Your task to perform on an android device: set an alarm Image 0: 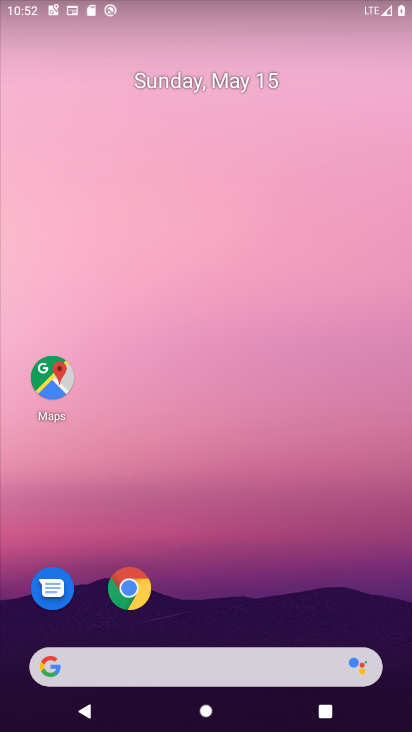
Step 0: drag from (204, 618) to (234, 111)
Your task to perform on an android device: set an alarm Image 1: 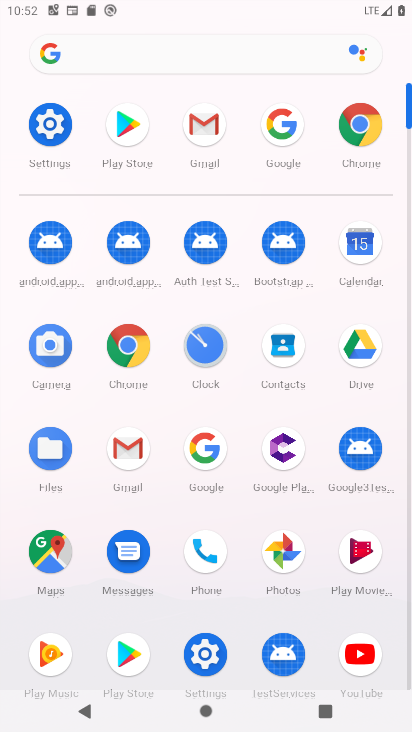
Step 1: click (204, 342)
Your task to perform on an android device: set an alarm Image 2: 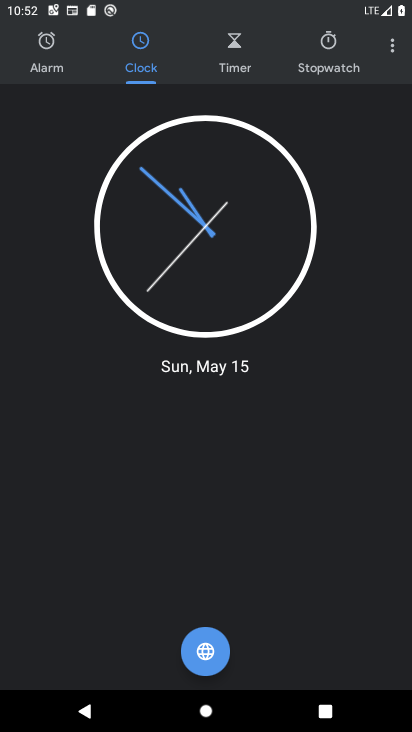
Step 2: click (48, 41)
Your task to perform on an android device: set an alarm Image 3: 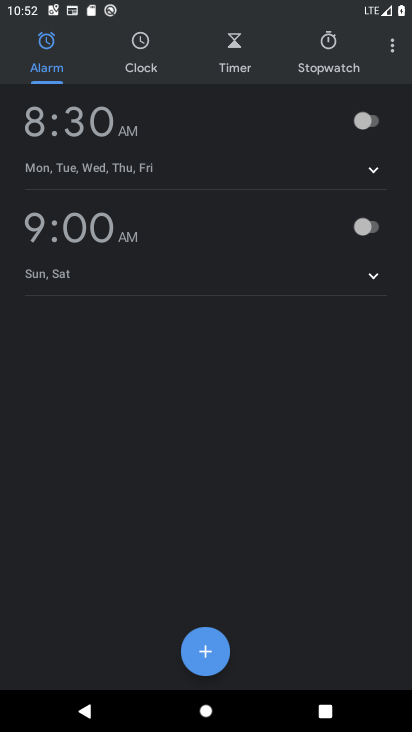
Step 3: click (368, 221)
Your task to perform on an android device: set an alarm Image 4: 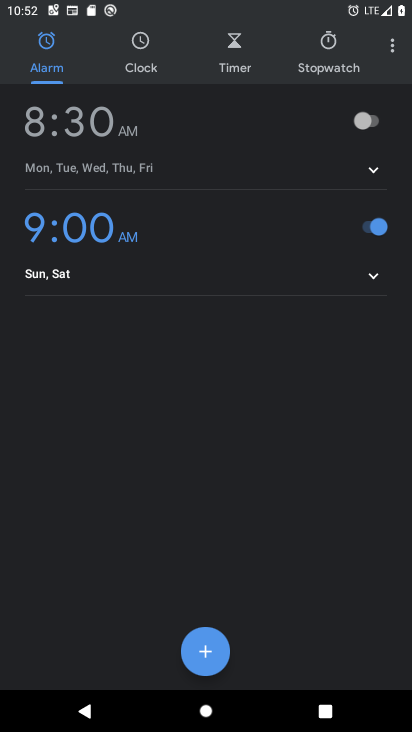
Step 4: task complete